Your task to perform on an android device: check data usage Image 0: 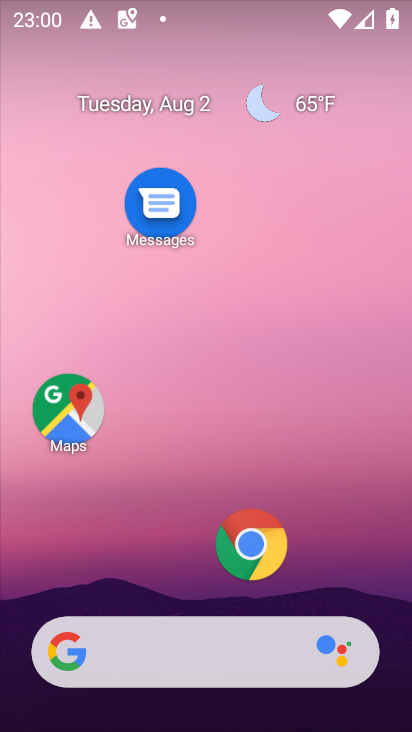
Step 0: drag from (185, 583) to (187, 93)
Your task to perform on an android device: check data usage Image 1: 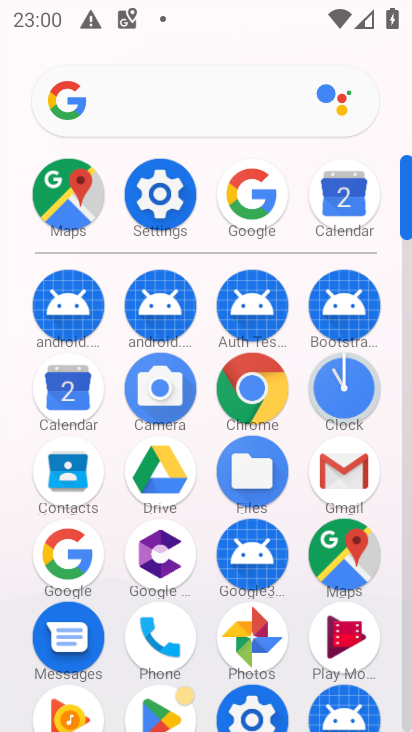
Step 1: click (163, 216)
Your task to perform on an android device: check data usage Image 2: 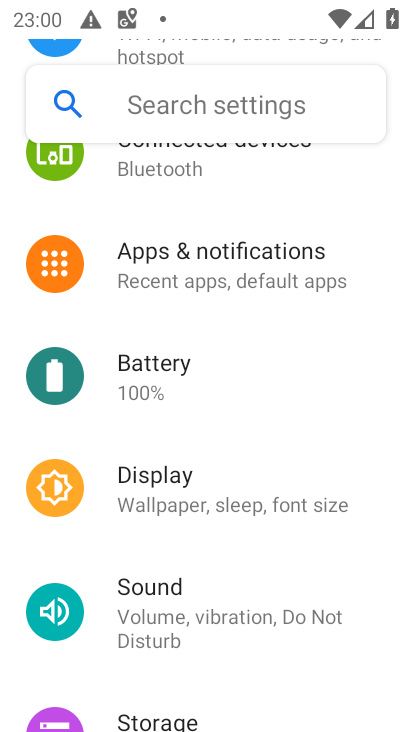
Step 2: drag from (179, 223) to (222, 599)
Your task to perform on an android device: check data usage Image 3: 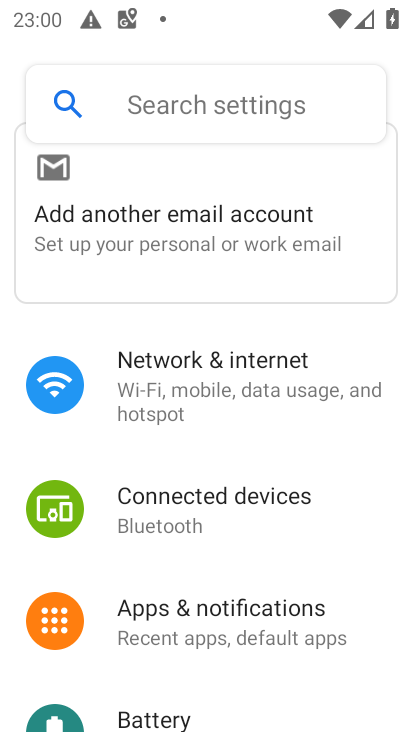
Step 3: click (230, 421)
Your task to perform on an android device: check data usage Image 4: 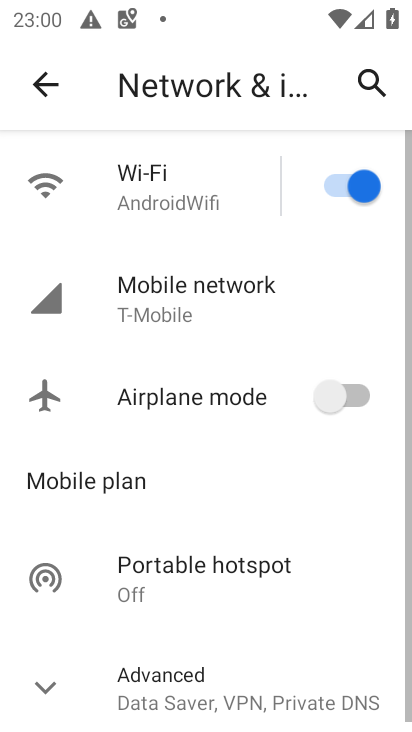
Step 4: click (198, 315)
Your task to perform on an android device: check data usage Image 5: 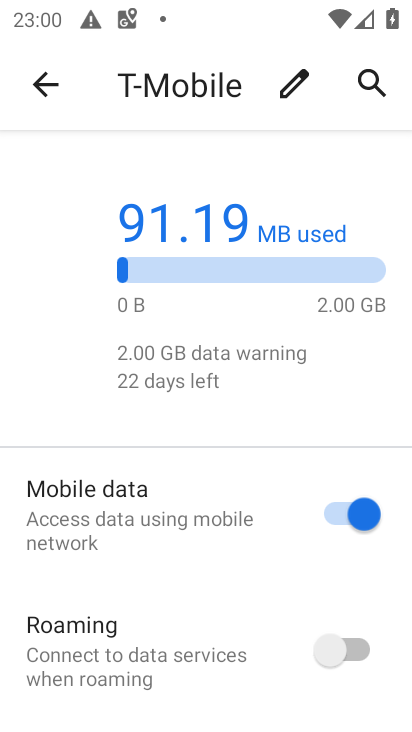
Step 5: drag from (200, 638) to (193, 273)
Your task to perform on an android device: check data usage Image 6: 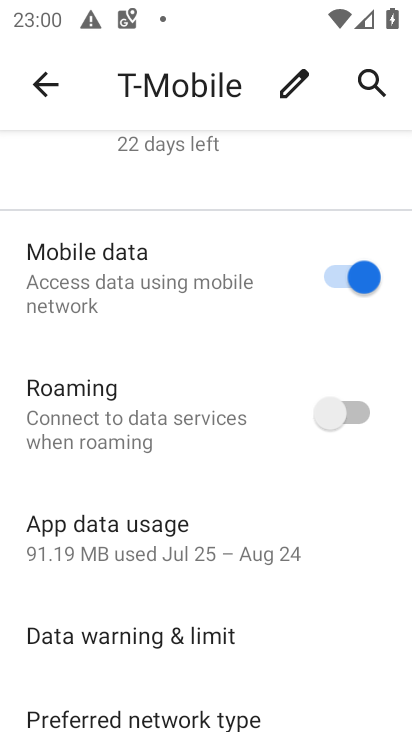
Step 6: click (173, 516)
Your task to perform on an android device: check data usage Image 7: 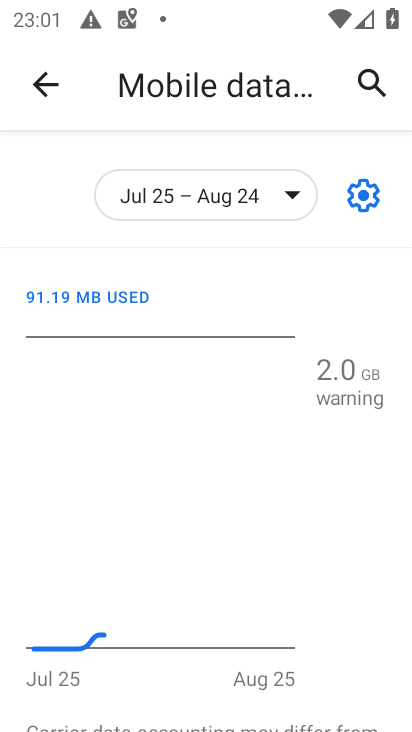
Step 7: task complete